Your task to perform on an android device: Is it going to rain tomorrow? Image 0: 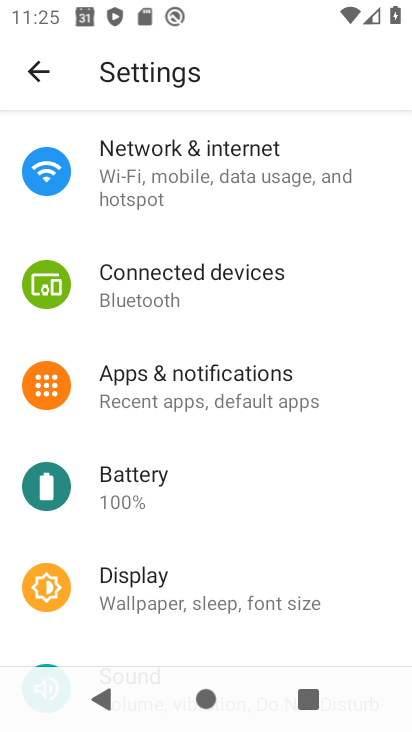
Step 0: press home button
Your task to perform on an android device: Is it going to rain tomorrow? Image 1: 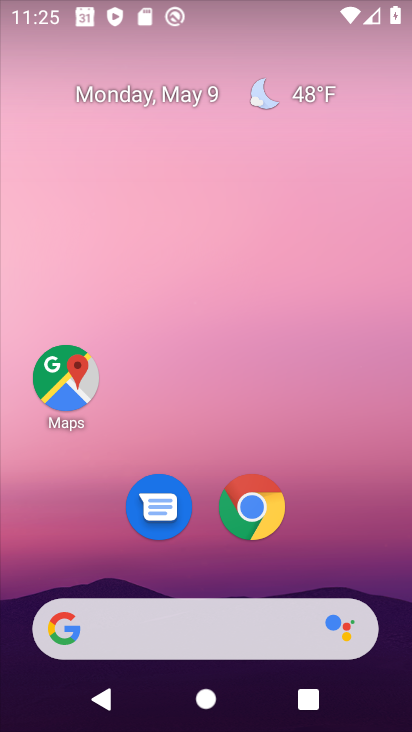
Step 1: click (295, 96)
Your task to perform on an android device: Is it going to rain tomorrow? Image 2: 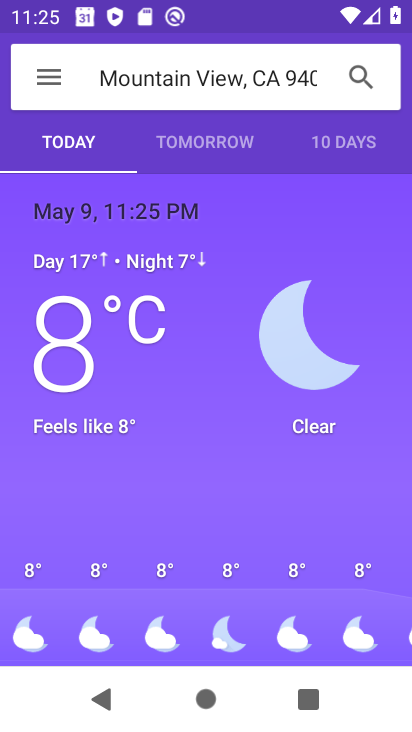
Step 2: click (201, 151)
Your task to perform on an android device: Is it going to rain tomorrow? Image 3: 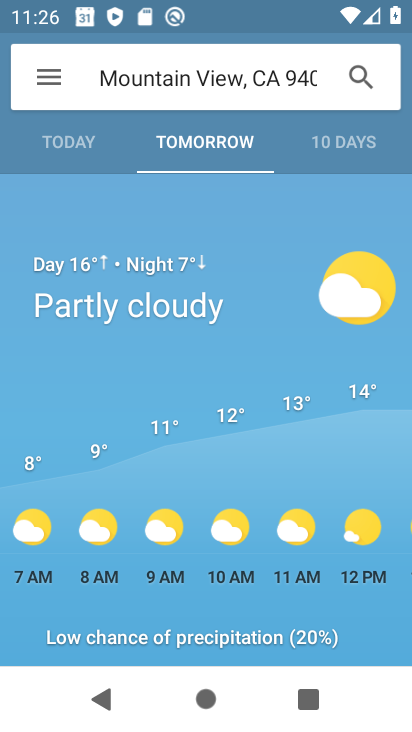
Step 3: task complete